Your task to perform on an android device: Open Amazon Image 0: 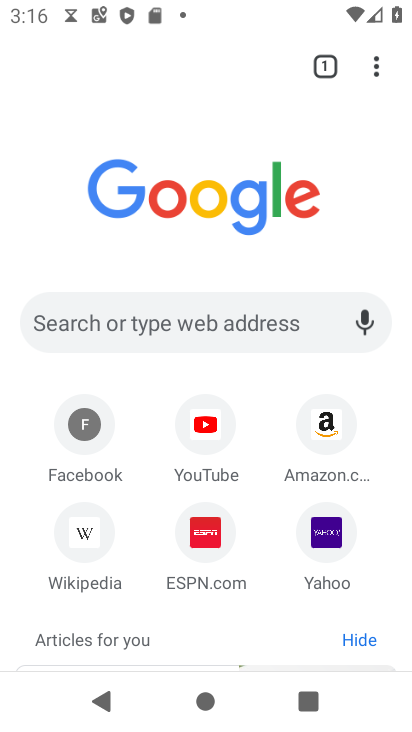
Step 0: click (318, 427)
Your task to perform on an android device: Open Amazon Image 1: 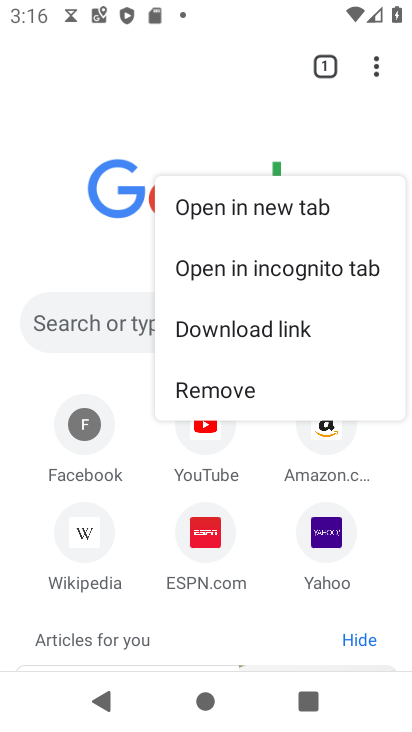
Step 1: click (326, 426)
Your task to perform on an android device: Open Amazon Image 2: 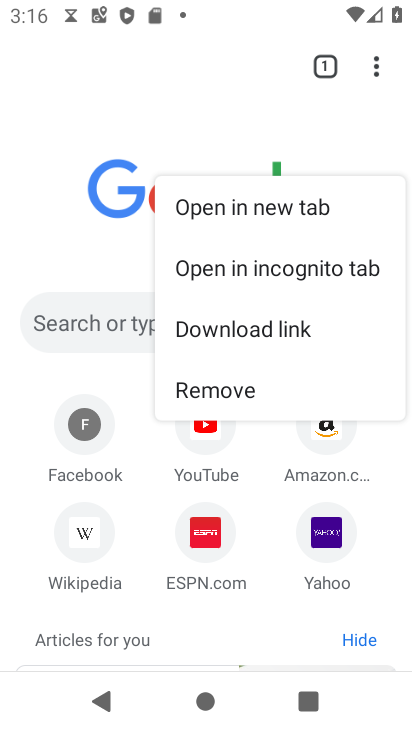
Step 2: click (326, 427)
Your task to perform on an android device: Open Amazon Image 3: 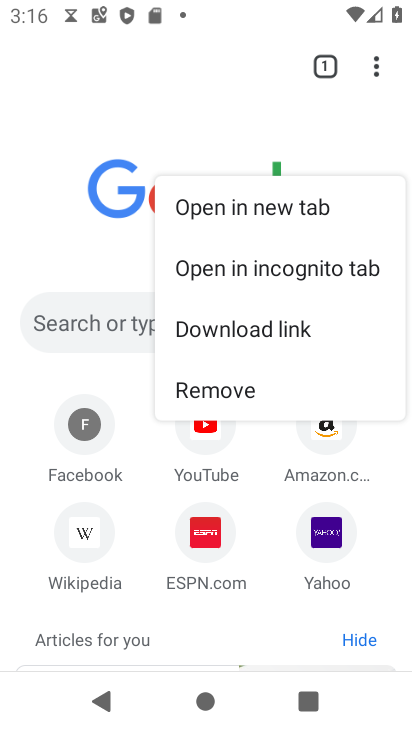
Step 3: click (322, 429)
Your task to perform on an android device: Open Amazon Image 4: 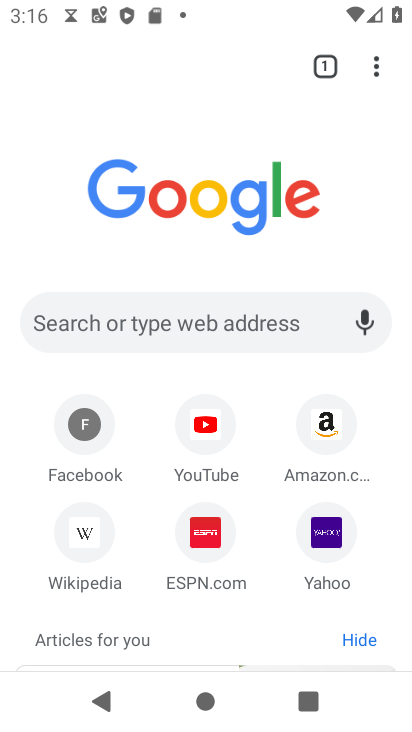
Step 4: click (327, 416)
Your task to perform on an android device: Open Amazon Image 5: 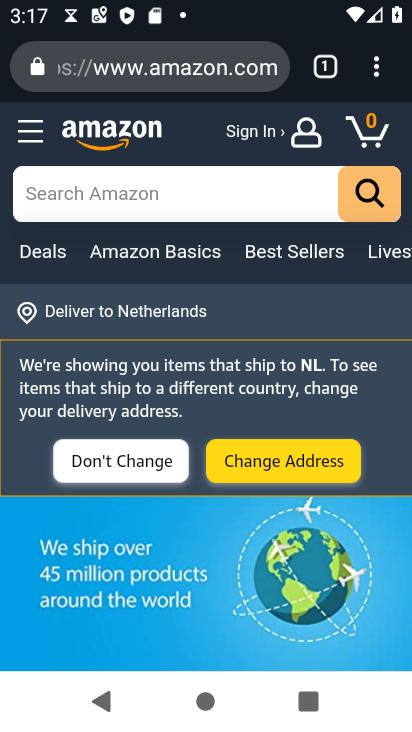
Step 5: task complete